Your task to perform on an android device: Search for Mexican restaurants on Maps Image 0: 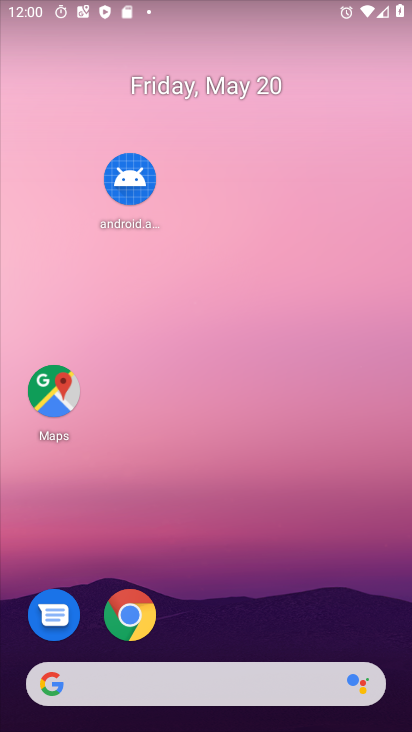
Step 0: click (59, 408)
Your task to perform on an android device: Search for Mexican restaurants on Maps Image 1: 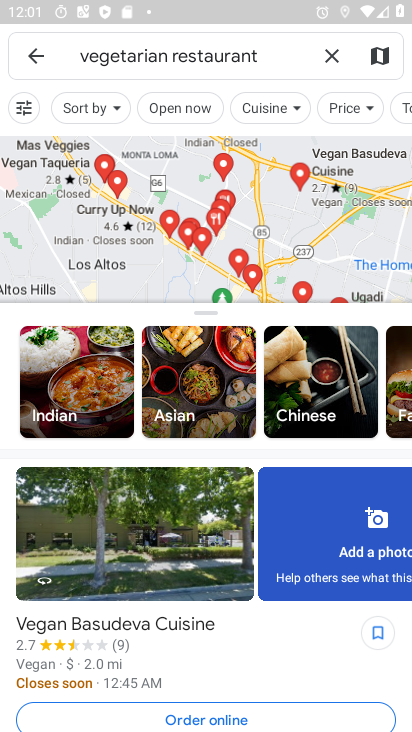
Step 1: click (323, 56)
Your task to perform on an android device: Search for Mexican restaurants on Maps Image 2: 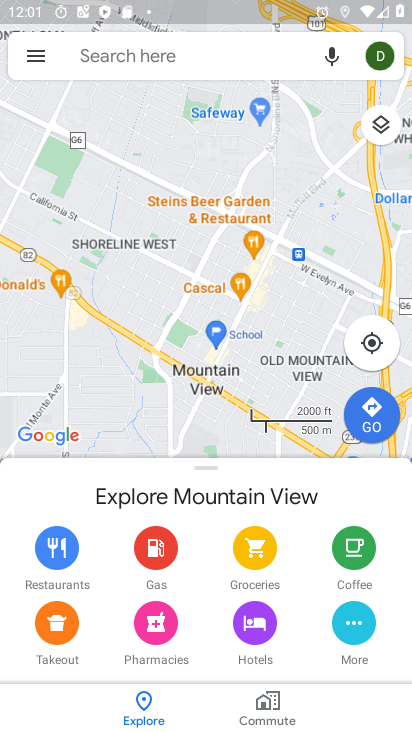
Step 2: click (248, 56)
Your task to perform on an android device: Search for Mexican restaurants on Maps Image 3: 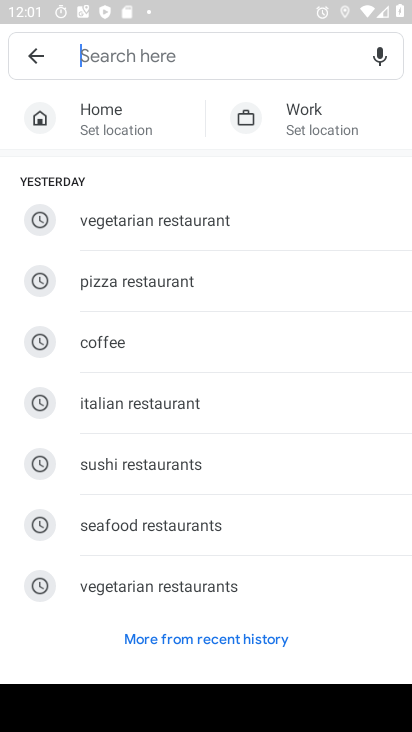
Step 3: type "mexican"
Your task to perform on an android device: Search for Mexican restaurants on Maps Image 4: 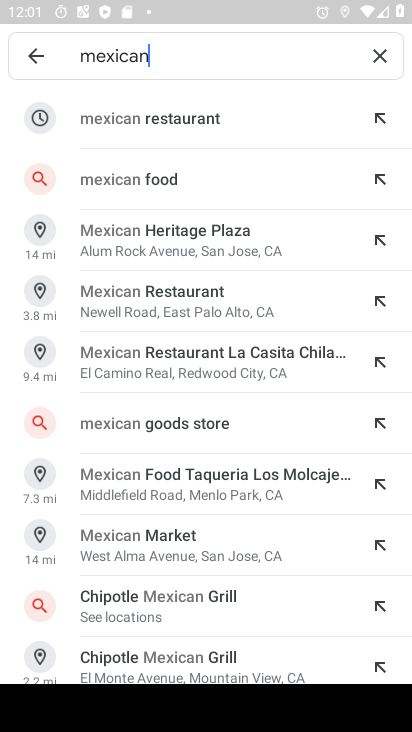
Step 4: click (140, 107)
Your task to perform on an android device: Search for Mexican restaurants on Maps Image 5: 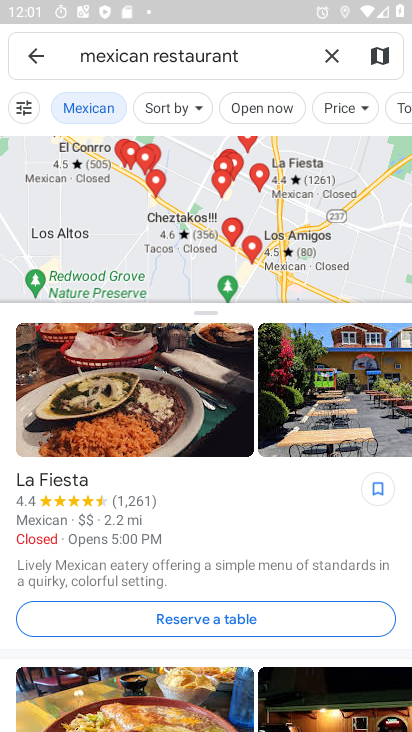
Step 5: task complete